Your task to perform on an android device: Open Youtube and go to the subscriptions tab Image 0: 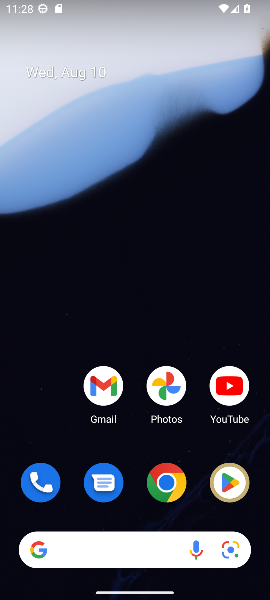
Step 0: drag from (43, 402) to (50, 193)
Your task to perform on an android device: Open Youtube and go to the subscriptions tab Image 1: 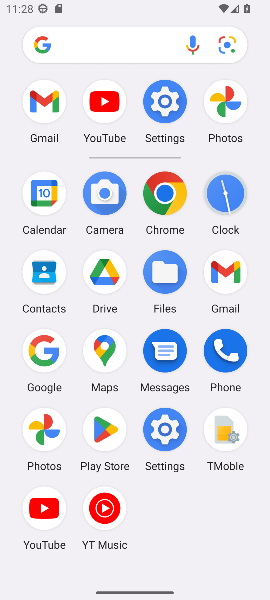
Step 1: click (51, 513)
Your task to perform on an android device: Open Youtube and go to the subscriptions tab Image 2: 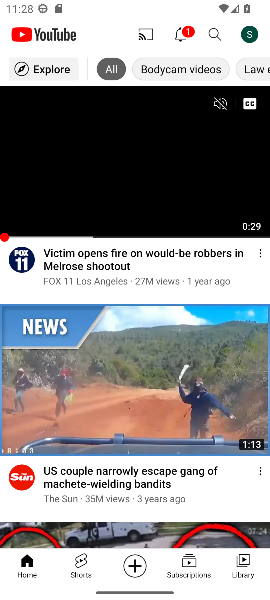
Step 2: task complete